Your task to perform on an android device: Clear the cart on amazon.com. Add razer thresher to the cart on amazon.com, then select checkout. Image 0: 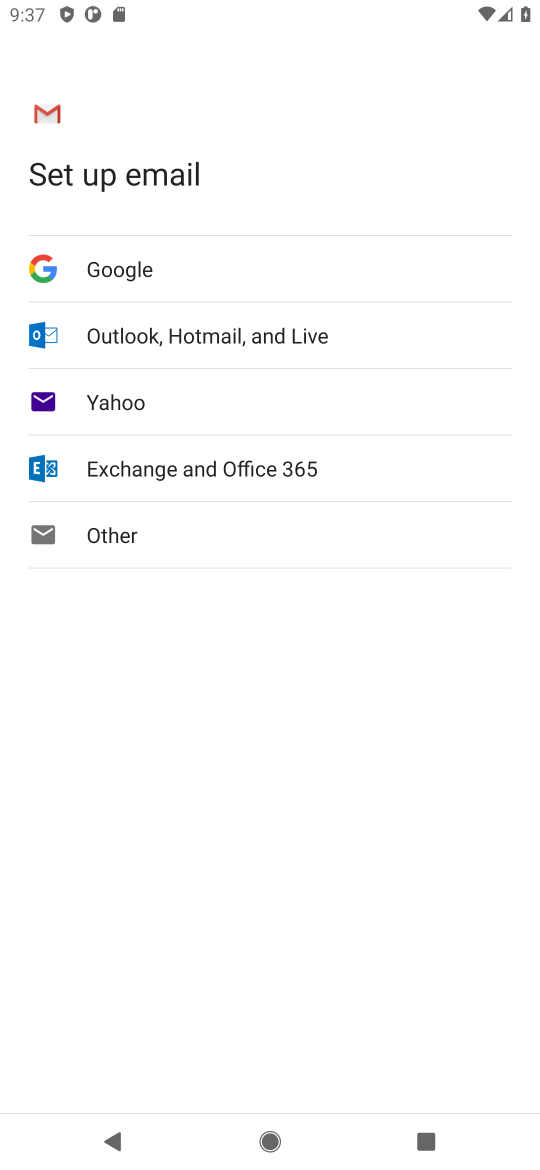
Step 0: press home button
Your task to perform on an android device: Clear the cart on amazon.com. Add razer thresher to the cart on amazon.com, then select checkout. Image 1: 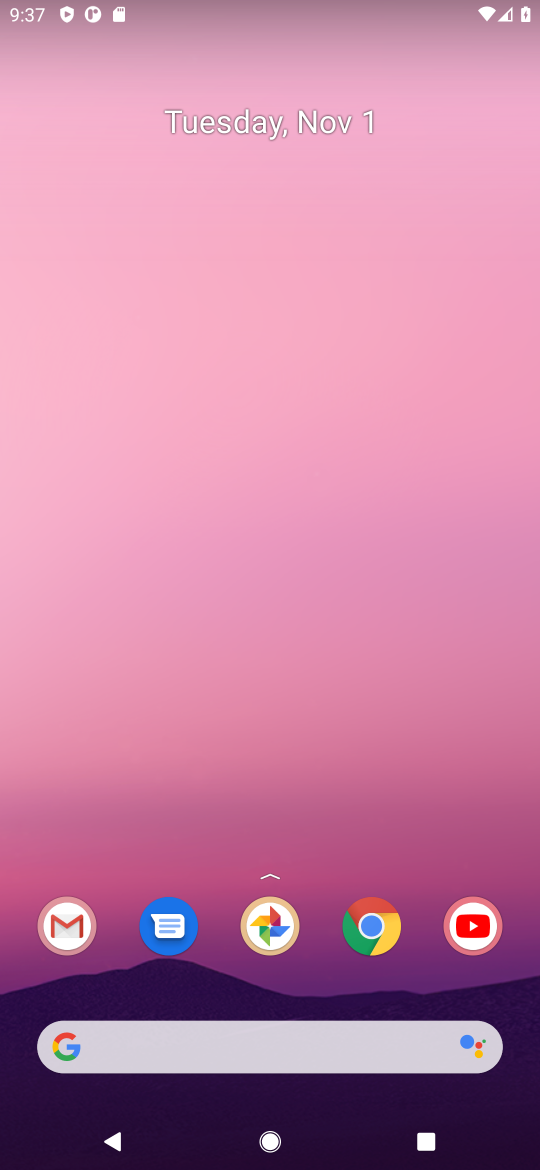
Step 1: click (378, 929)
Your task to perform on an android device: Clear the cart on amazon.com. Add razer thresher to the cart on amazon.com, then select checkout. Image 2: 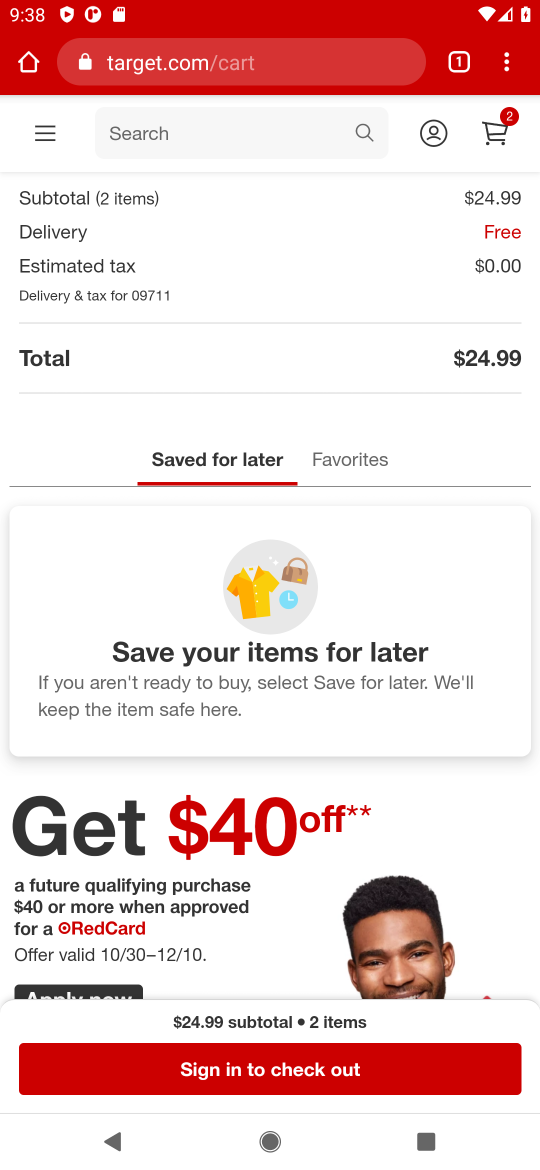
Step 2: click (225, 80)
Your task to perform on an android device: Clear the cart on amazon.com. Add razer thresher to the cart on amazon.com, then select checkout. Image 3: 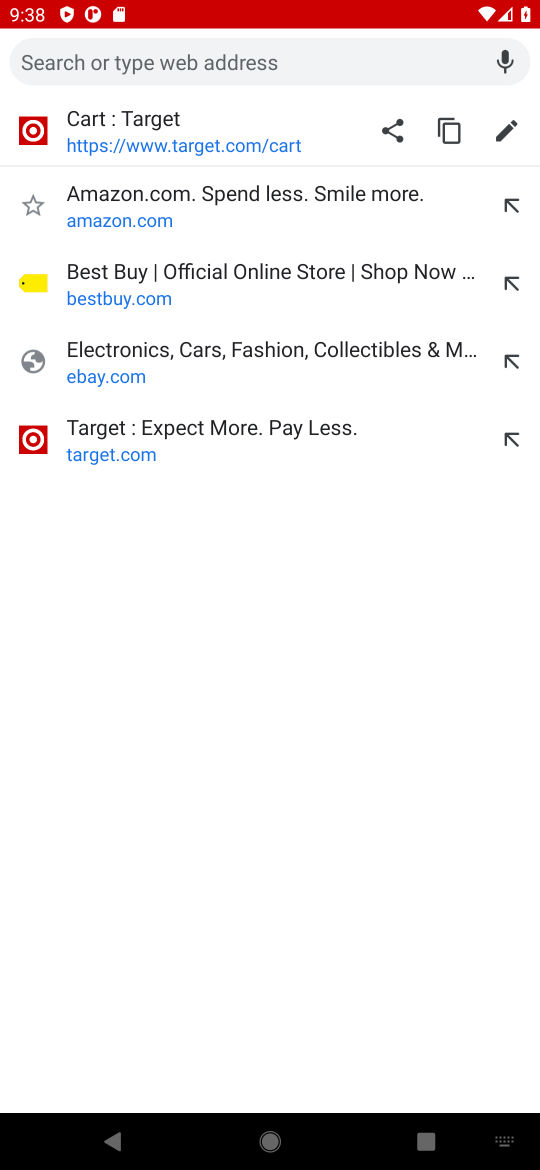
Step 3: click (118, 201)
Your task to perform on an android device: Clear the cart on amazon.com. Add razer thresher to the cart on amazon.com, then select checkout. Image 4: 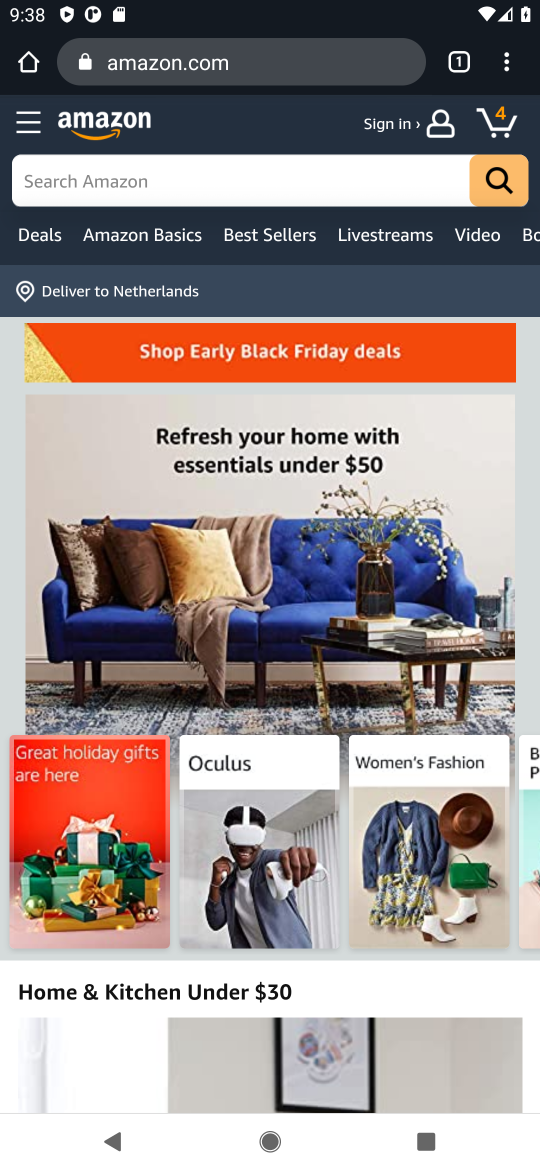
Step 4: click (155, 185)
Your task to perform on an android device: Clear the cart on amazon.com. Add razer thresher to the cart on amazon.com, then select checkout. Image 5: 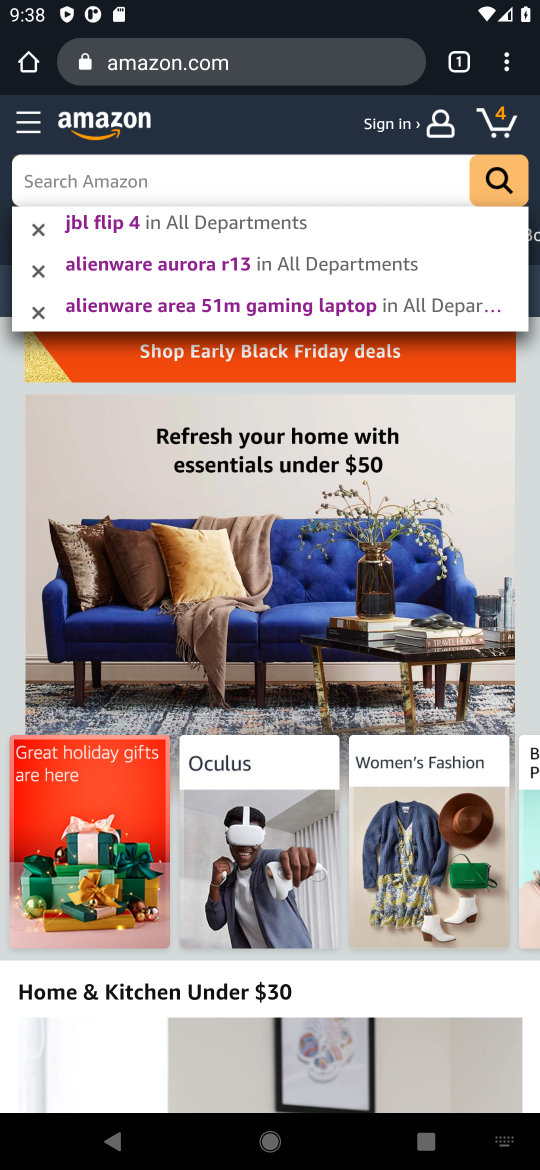
Step 5: type "razer thresher"
Your task to perform on an android device: Clear the cart on amazon.com. Add razer thresher to the cart on amazon.com, then select checkout. Image 6: 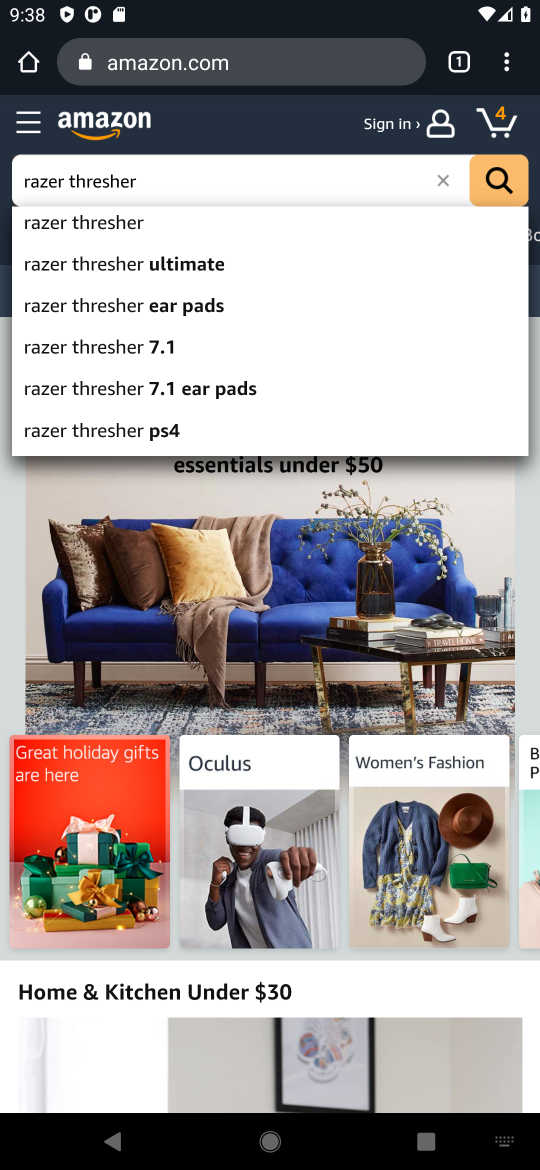
Step 6: click (36, 221)
Your task to perform on an android device: Clear the cart on amazon.com. Add razer thresher to the cart on amazon.com, then select checkout. Image 7: 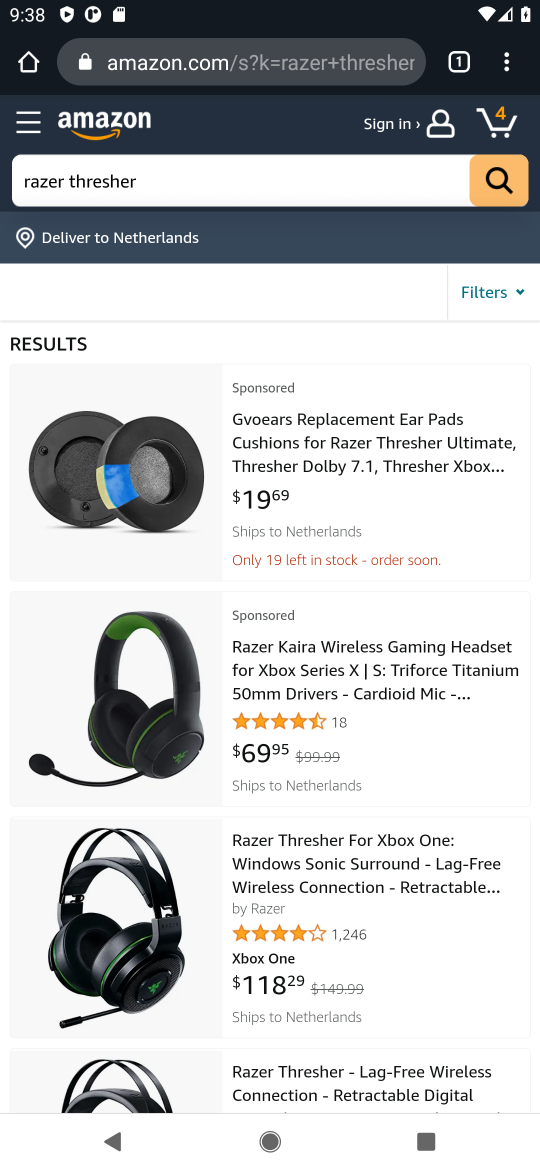
Step 7: click (283, 932)
Your task to perform on an android device: Clear the cart on amazon.com. Add razer thresher to the cart on amazon.com, then select checkout. Image 8: 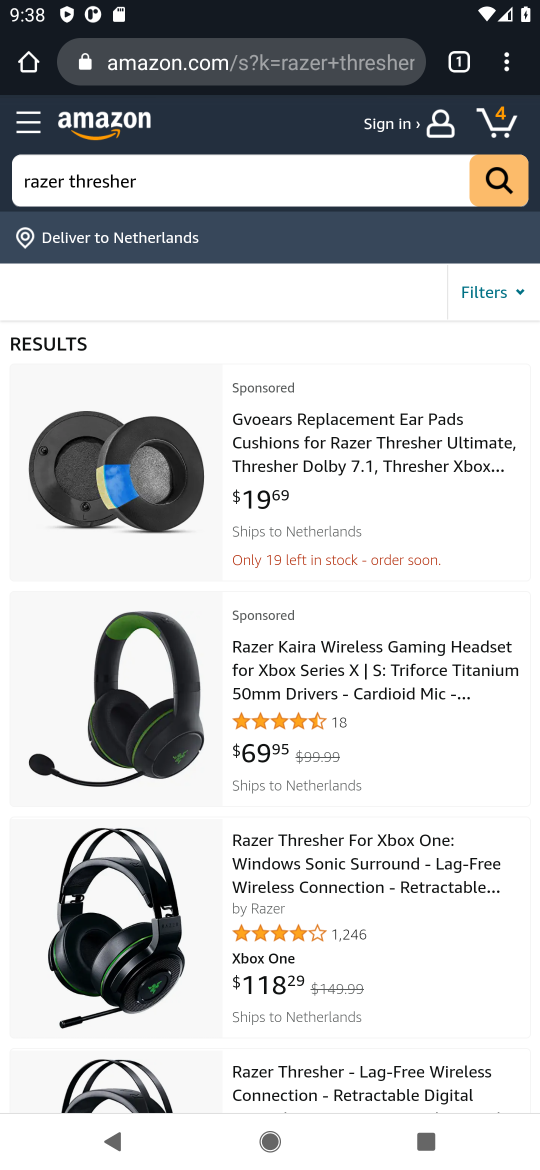
Step 8: click (256, 860)
Your task to perform on an android device: Clear the cart on amazon.com. Add razer thresher to the cart on amazon.com, then select checkout. Image 9: 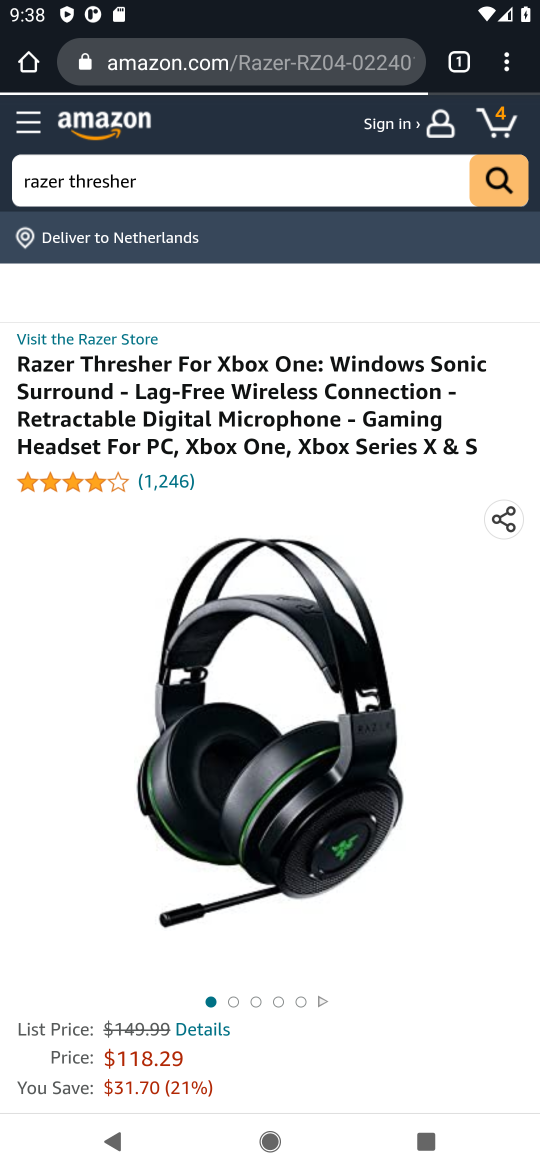
Step 9: drag from (324, 878) to (418, 118)
Your task to perform on an android device: Clear the cart on amazon.com. Add razer thresher to the cart on amazon.com, then select checkout. Image 10: 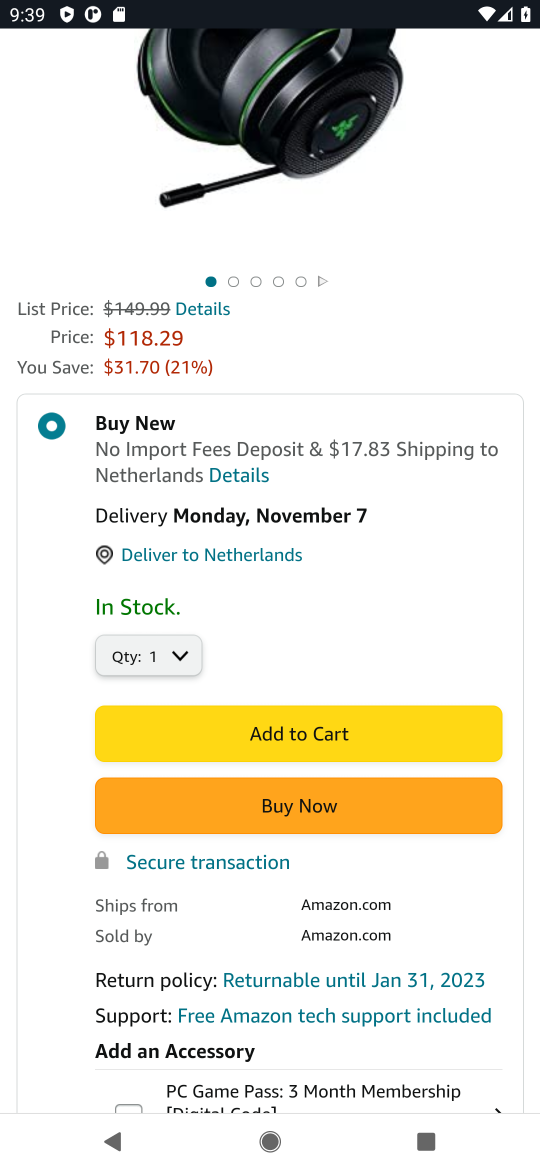
Step 10: click (276, 737)
Your task to perform on an android device: Clear the cart on amazon.com. Add razer thresher to the cart on amazon.com, then select checkout. Image 11: 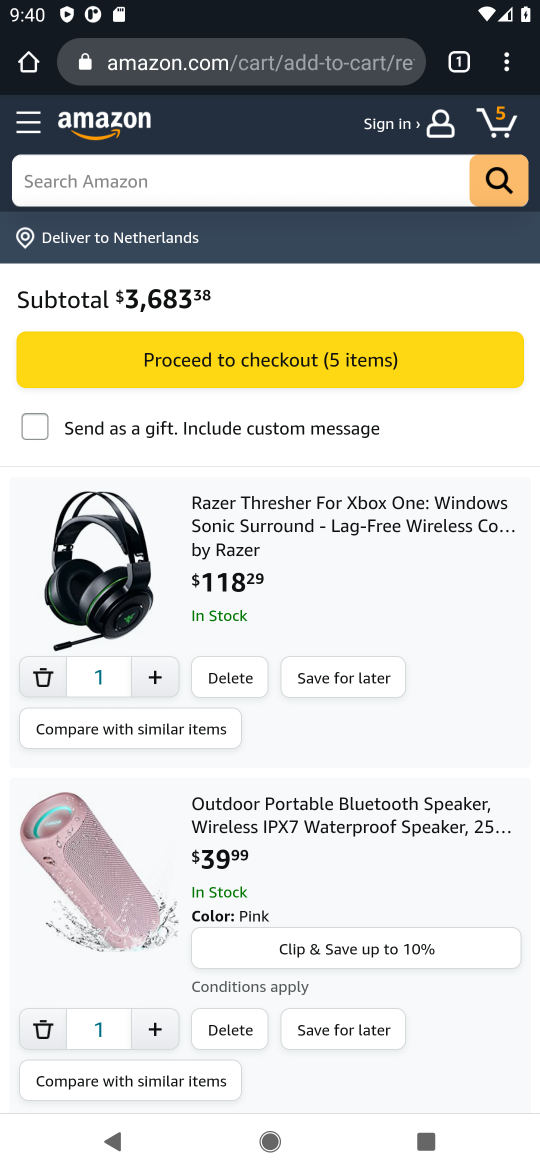
Step 11: click (220, 367)
Your task to perform on an android device: Clear the cart on amazon.com. Add razer thresher to the cart on amazon.com, then select checkout. Image 12: 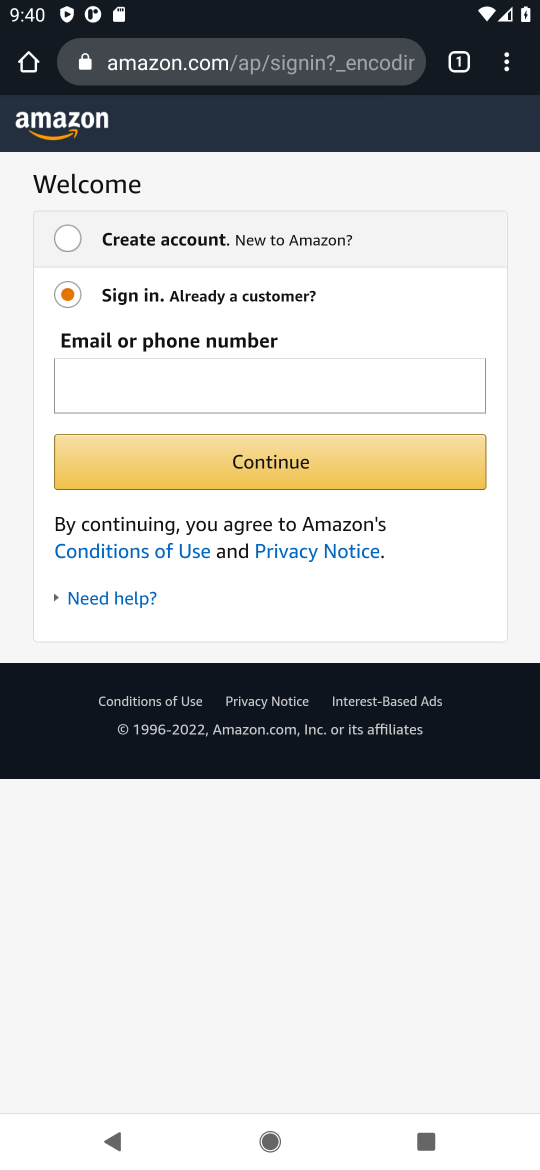
Step 12: task complete